Your task to perform on an android device: open app "Yahoo Mail" Image 0: 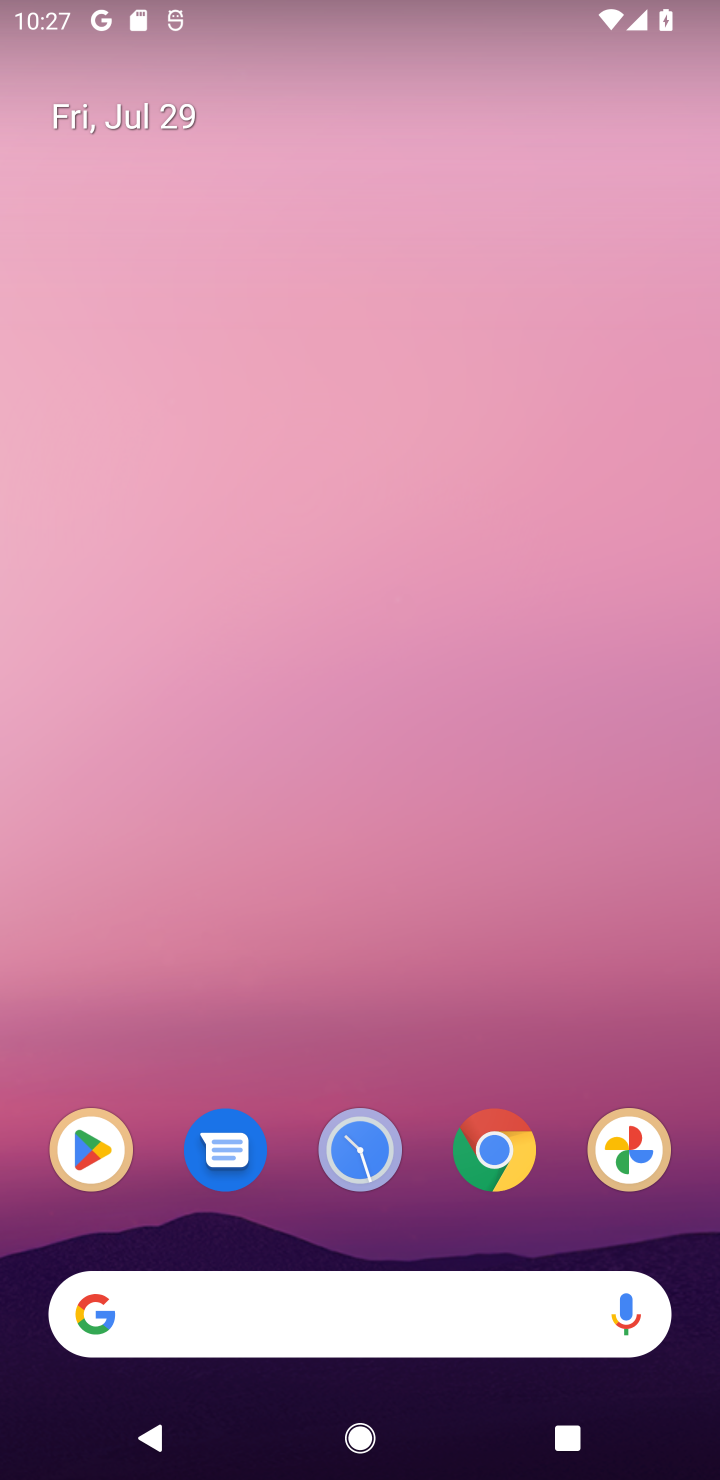
Step 0: click (80, 1145)
Your task to perform on an android device: open app "Yahoo Mail" Image 1: 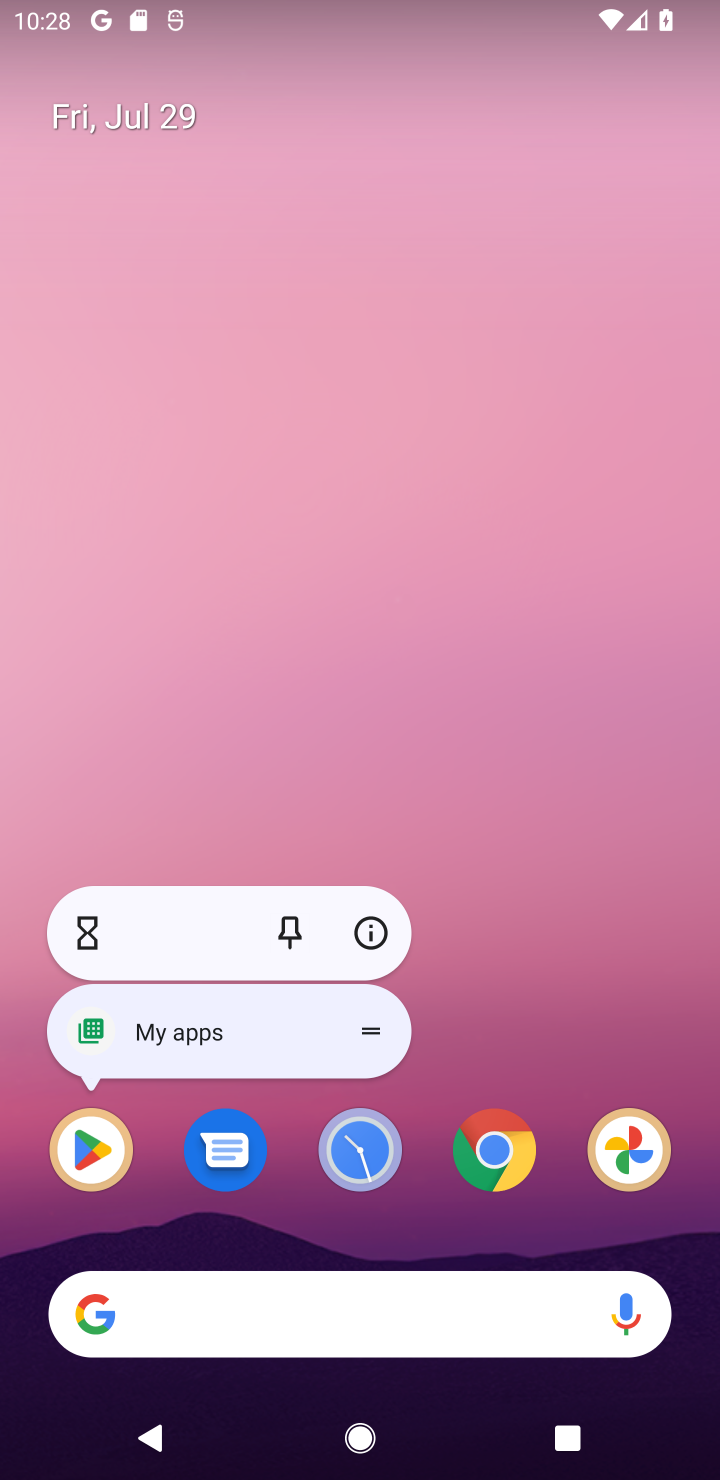
Step 1: click (101, 1137)
Your task to perform on an android device: open app "Yahoo Mail" Image 2: 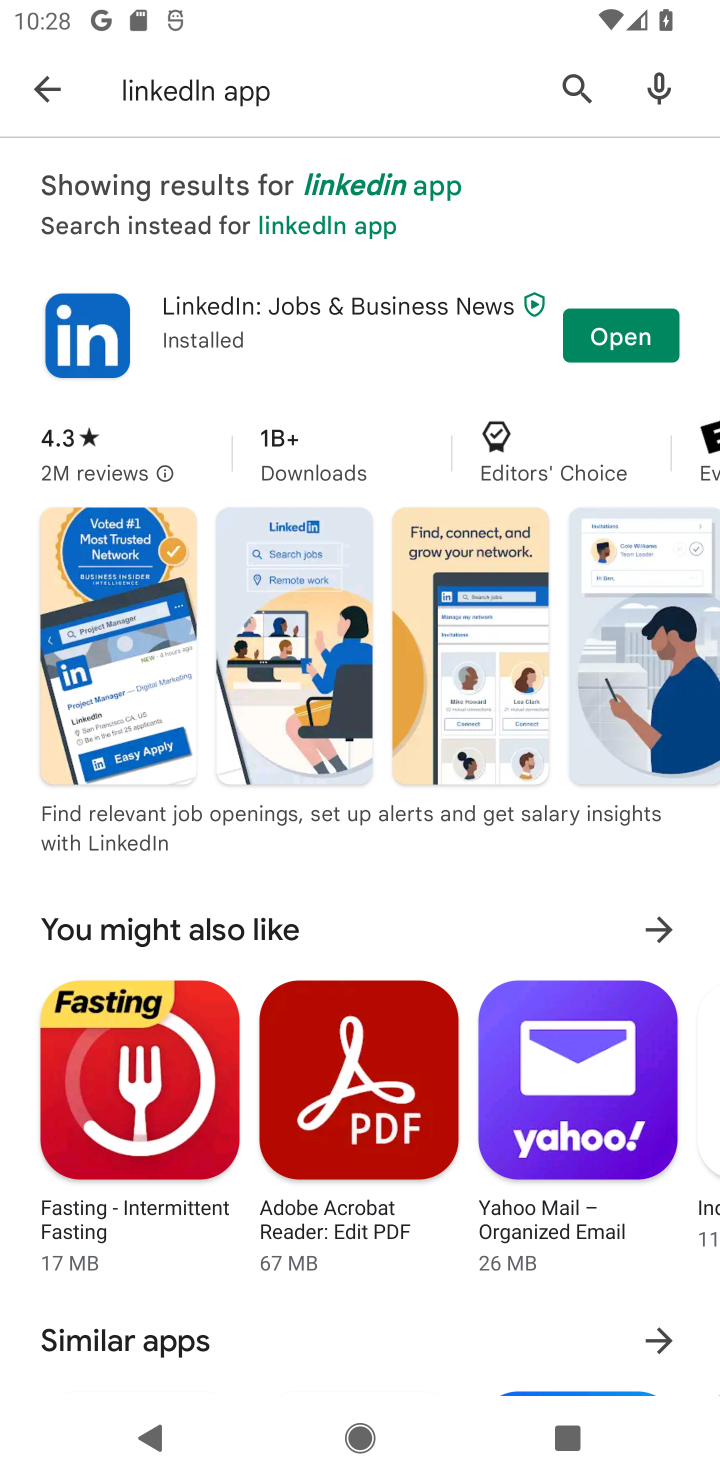
Step 2: click (592, 1101)
Your task to perform on an android device: open app "Yahoo Mail" Image 3: 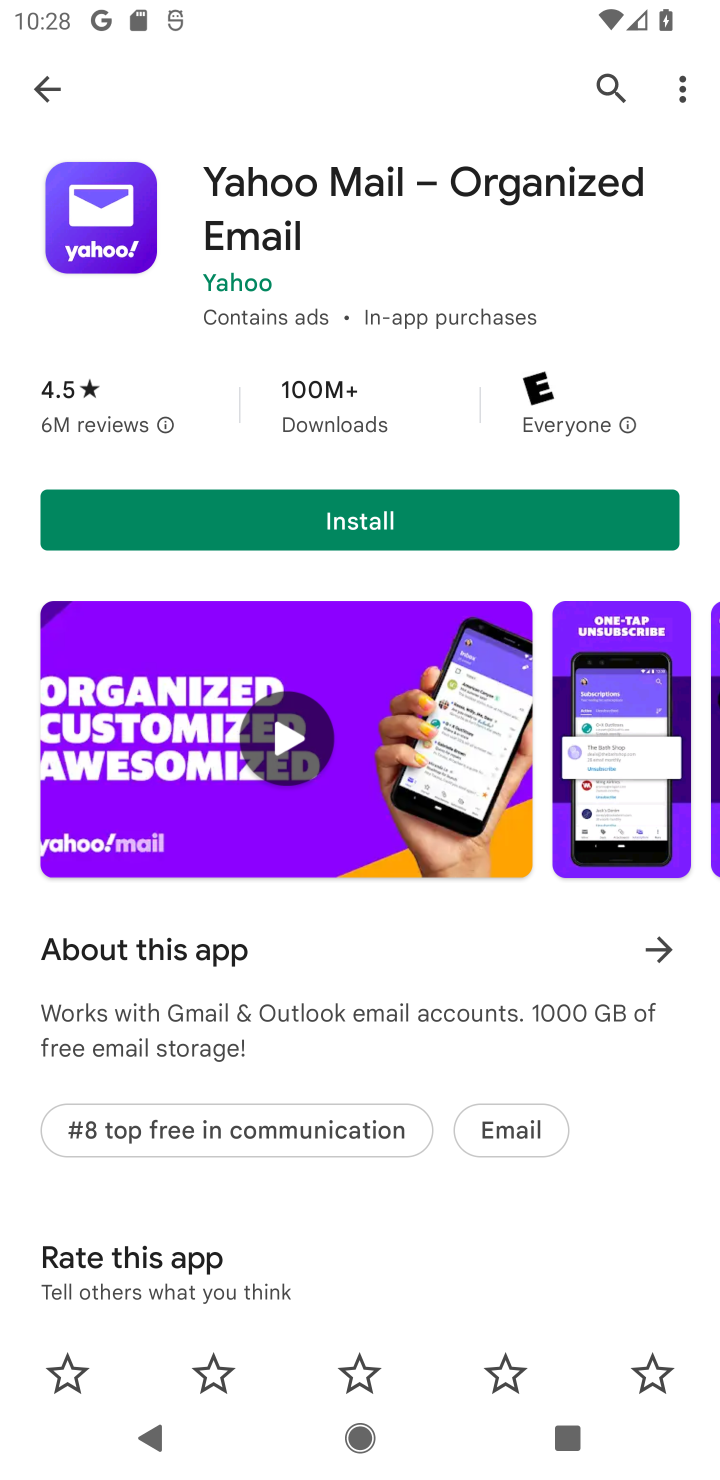
Step 3: task complete